Your task to perform on an android device: change notifications settings Image 0: 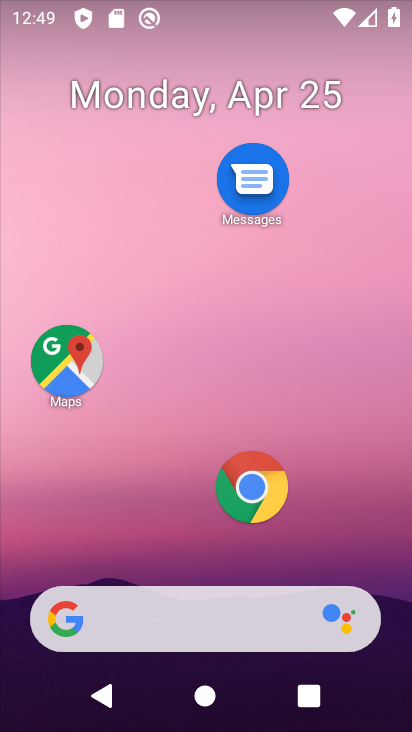
Step 0: click (293, 29)
Your task to perform on an android device: change notifications settings Image 1: 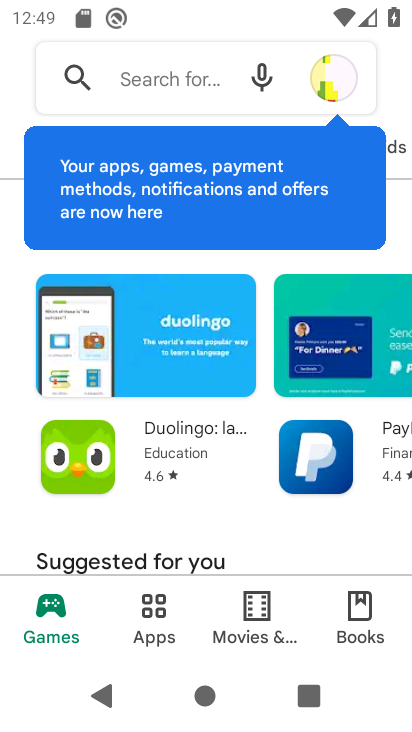
Step 1: press home button
Your task to perform on an android device: change notifications settings Image 2: 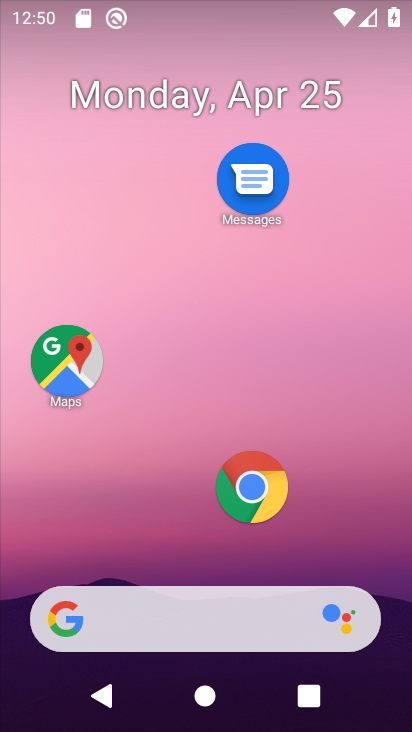
Step 2: drag from (303, 539) to (366, 89)
Your task to perform on an android device: change notifications settings Image 3: 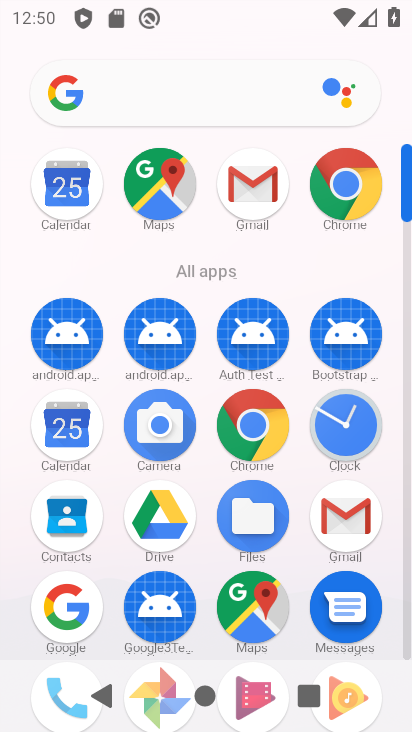
Step 3: drag from (194, 601) to (269, 172)
Your task to perform on an android device: change notifications settings Image 4: 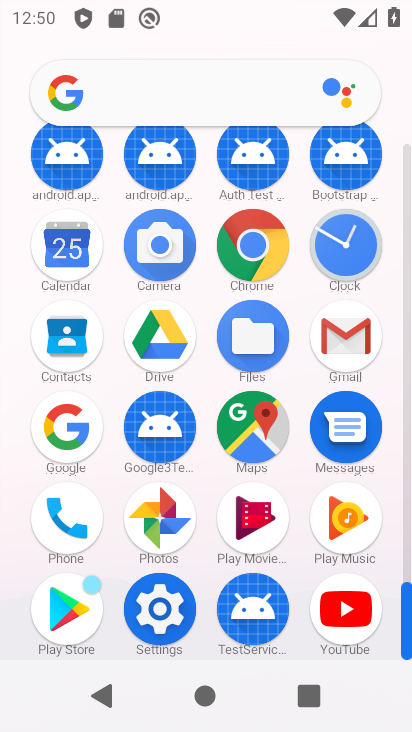
Step 4: click (160, 601)
Your task to perform on an android device: change notifications settings Image 5: 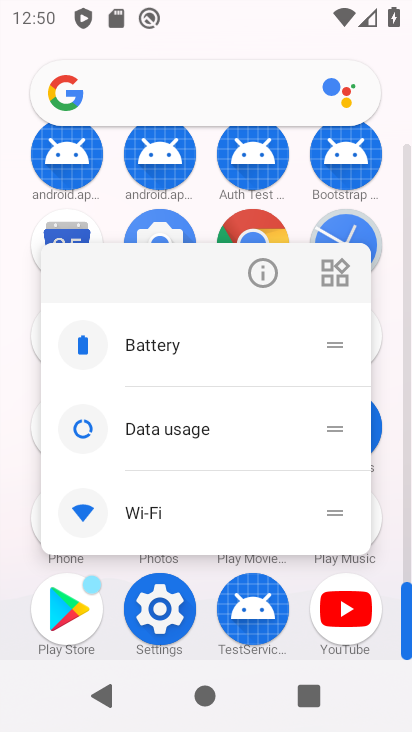
Step 5: click (127, 596)
Your task to perform on an android device: change notifications settings Image 6: 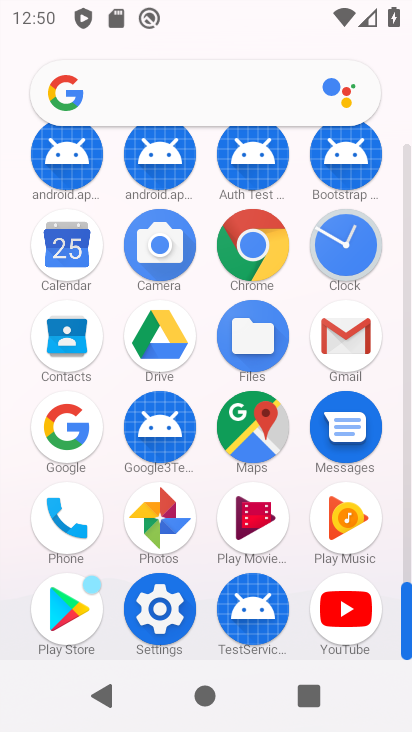
Step 6: click (161, 626)
Your task to perform on an android device: change notifications settings Image 7: 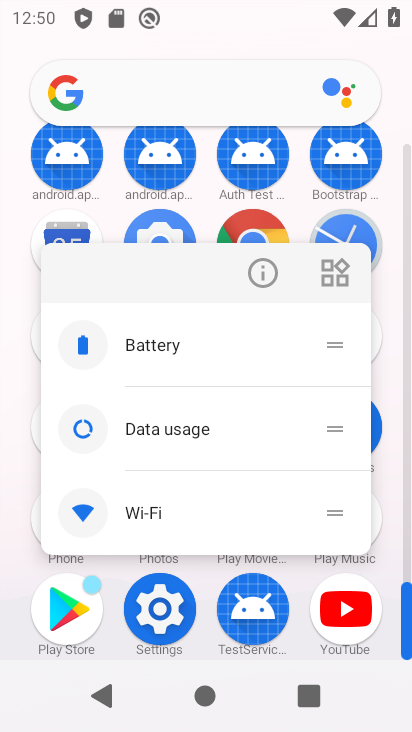
Step 7: click (161, 626)
Your task to perform on an android device: change notifications settings Image 8: 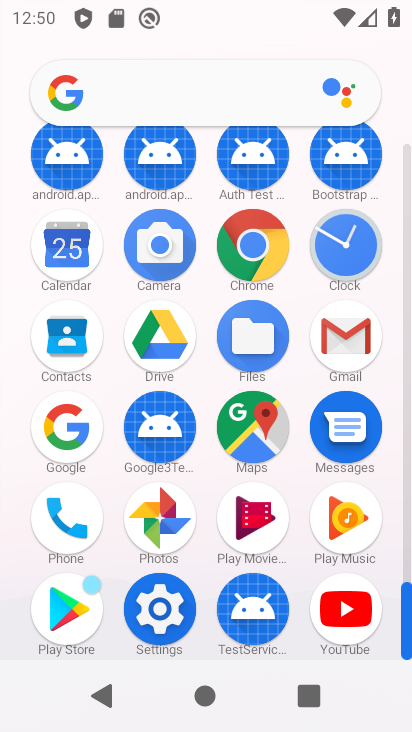
Step 8: click (161, 626)
Your task to perform on an android device: change notifications settings Image 9: 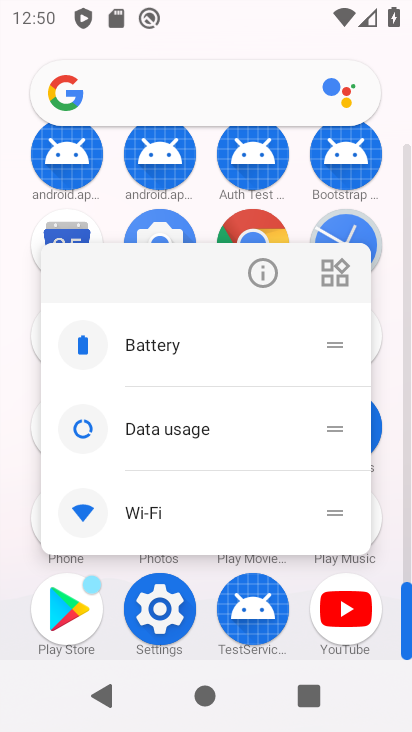
Step 9: click (179, 615)
Your task to perform on an android device: change notifications settings Image 10: 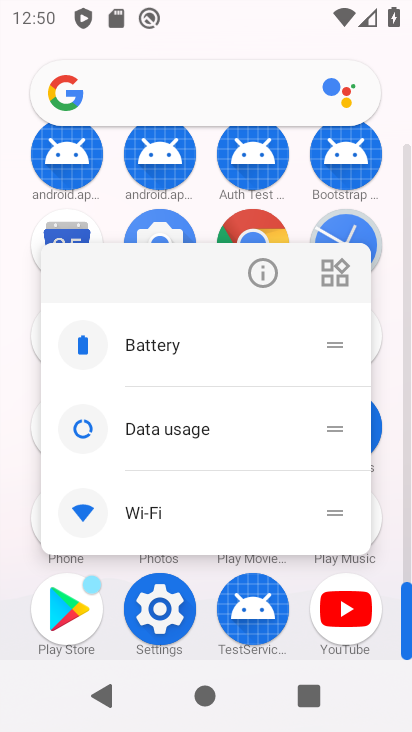
Step 10: click (179, 615)
Your task to perform on an android device: change notifications settings Image 11: 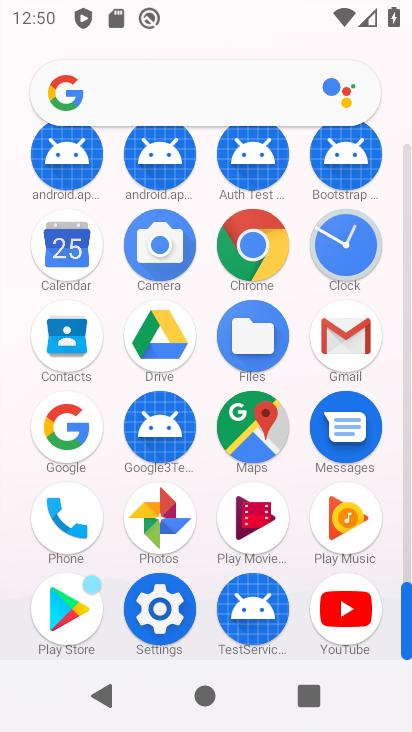
Step 11: click (176, 598)
Your task to perform on an android device: change notifications settings Image 12: 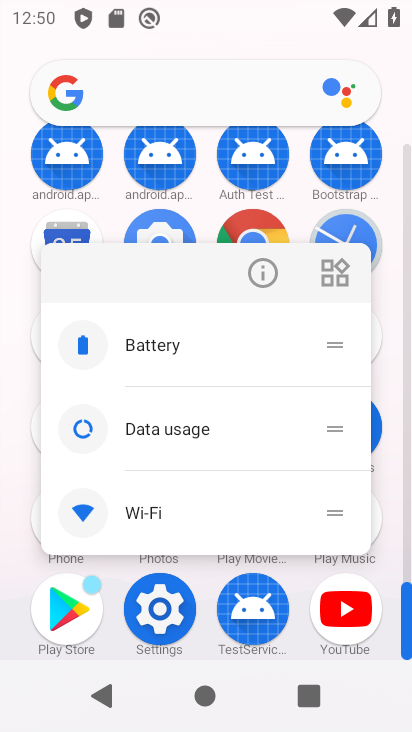
Step 12: click (176, 598)
Your task to perform on an android device: change notifications settings Image 13: 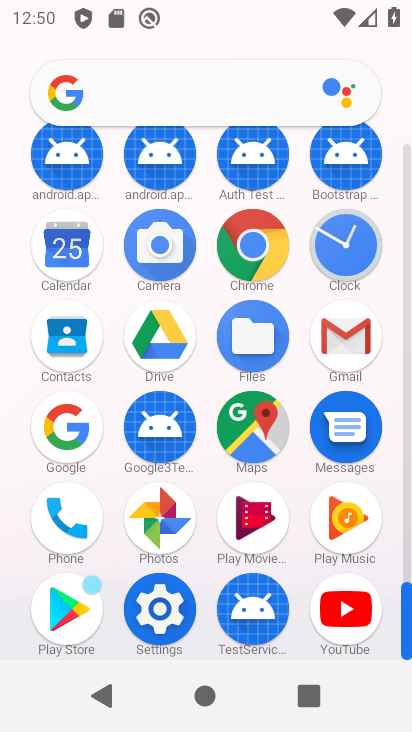
Step 13: click (183, 595)
Your task to perform on an android device: change notifications settings Image 14: 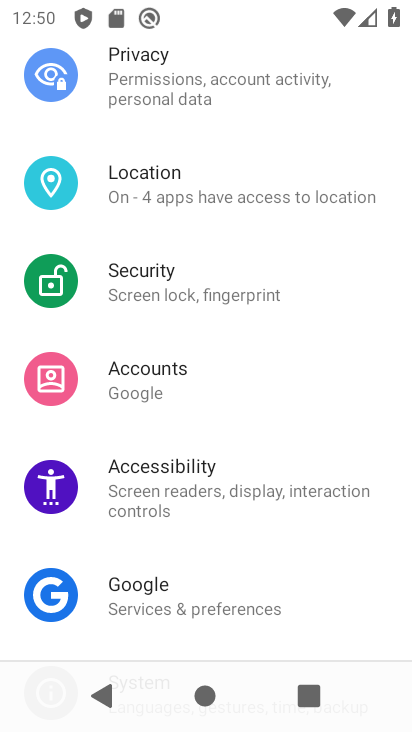
Step 14: drag from (231, 324) to (256, 675)
Your task to perform on an android device: change notifications settings Image 15: 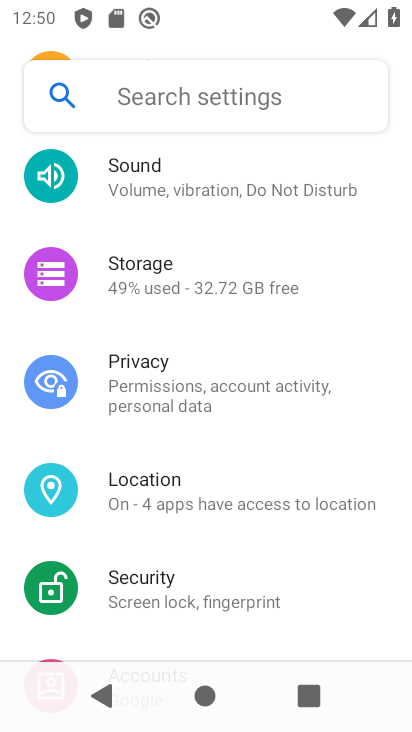
Step 15: drag from (257, 330) to (324, 676)
Your task to perform on an android device: change notifications settings Image 16: 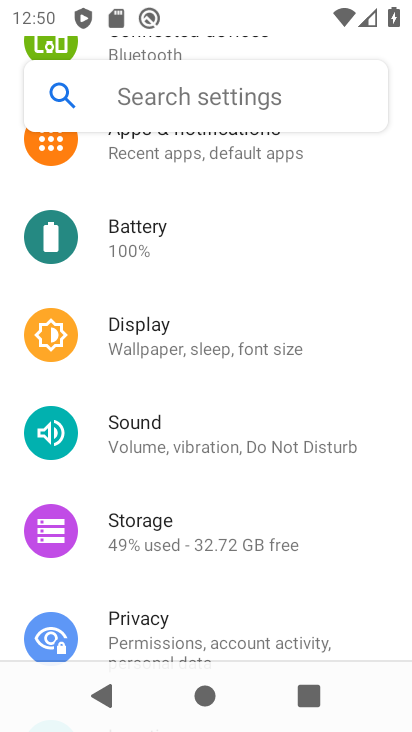
Step 16: drag from (277, 368) to (320, 709)
Your task to perform on an android device: change notifications settings Image 17: 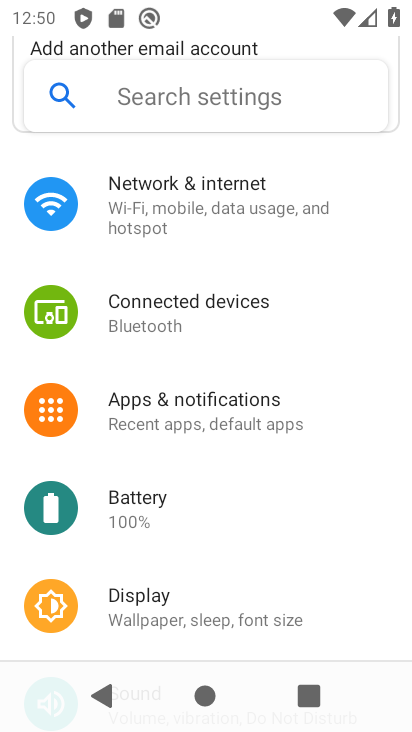
Step 17: click (238, 416)
Your task to perform on an android device: change notifications settings Image 18: 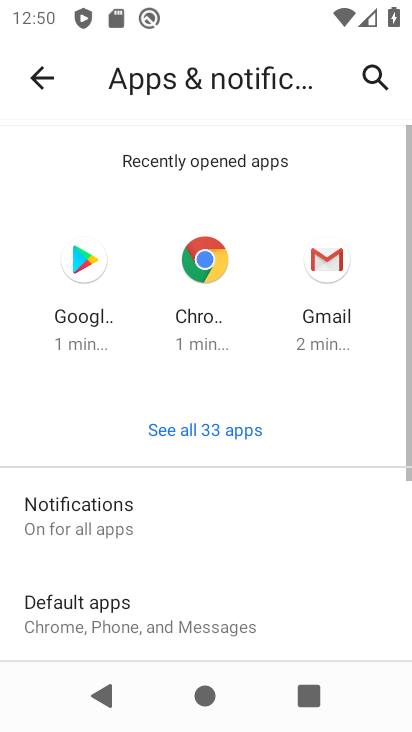
Step 18: drag from (288, 653) to (328, 290)
Your task to perform on an android device: change notifications settings Image 19: 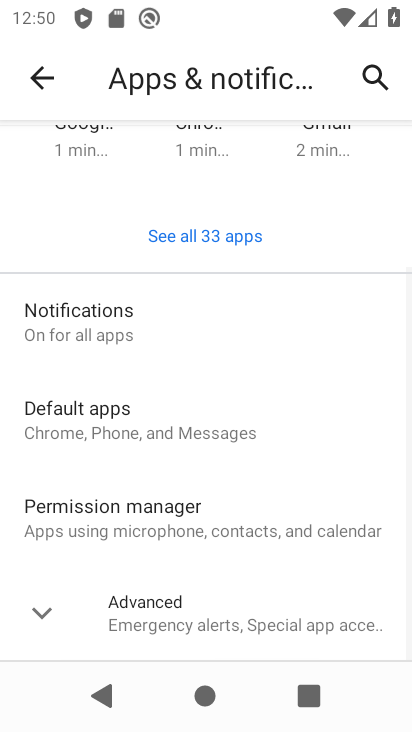
Step 19: click (214, 312)
Your task to perform on an android device: change notifications settings Image 20: 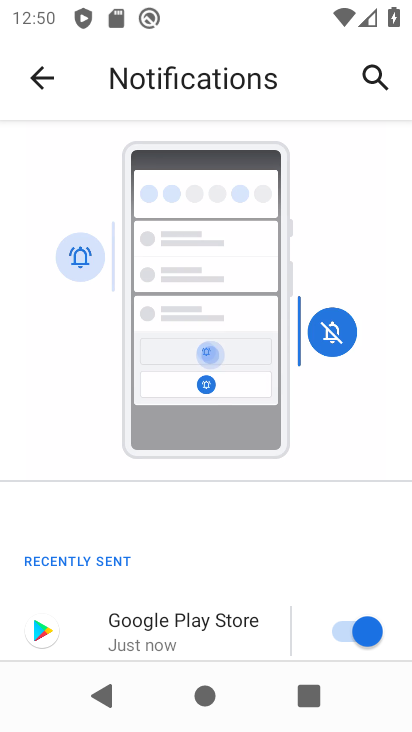
Step 20: click (340, 330)
Your task to perform on an android device: change notifications settings Image 21: 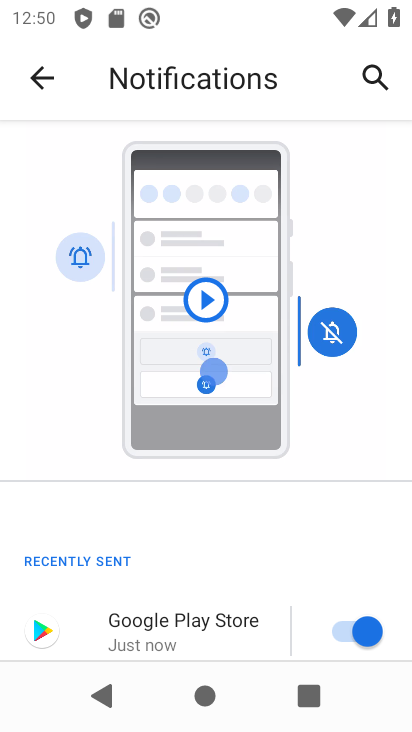
Step 21: click (71, 258)
Your task to perform on an android device: change notifications settings Image 22: 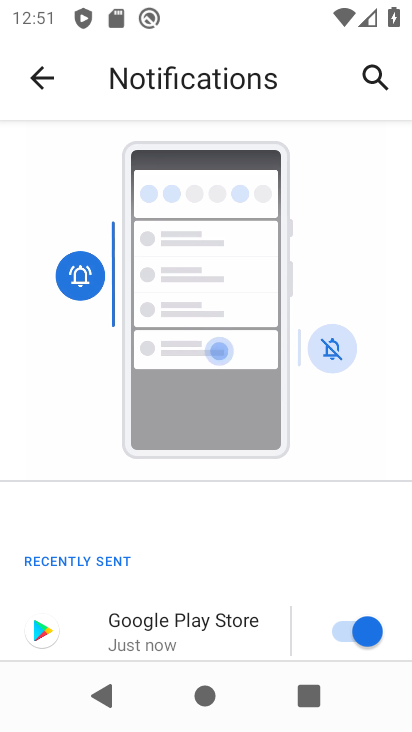
Step 22: task complete